Your task to perform on an android device: clear history in the chrome app Image 0: 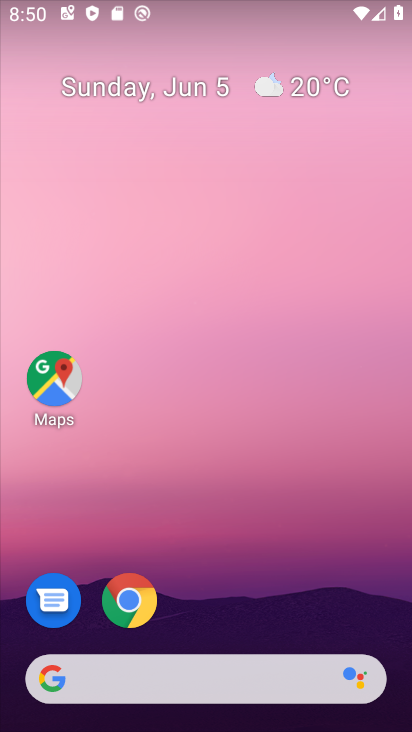
Step 0: click (130, 592)
Your task to perform on an android device: clear history in the chrome app Image 1: 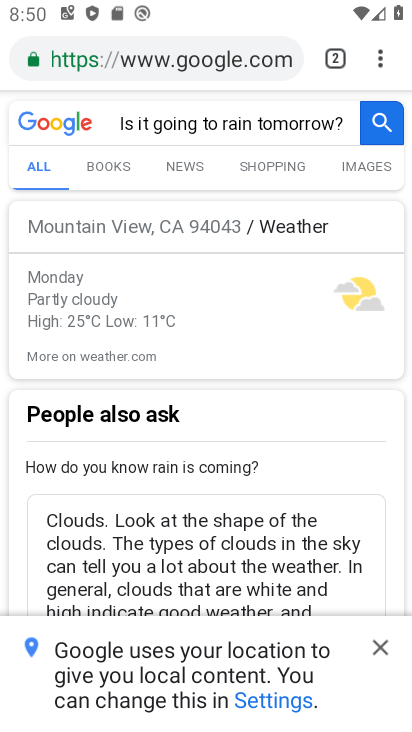
Step 1: click (378, 62)
Your task to perform on an android device: clear history in the chrome app Image 2: 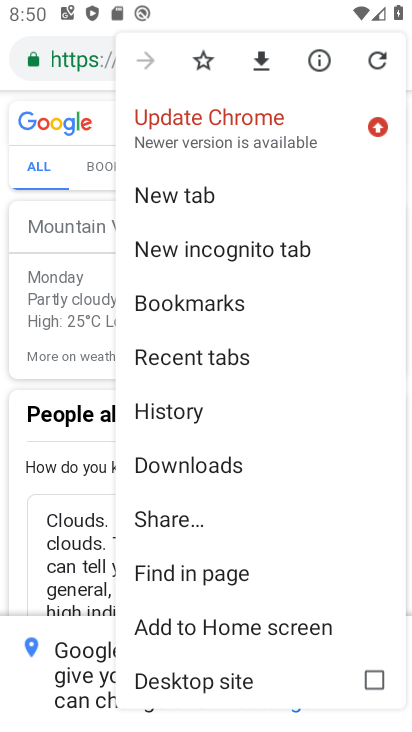
Step 2: click (175, 410)
Your task to perform on an android device: clear history in the chrome app Image 3: 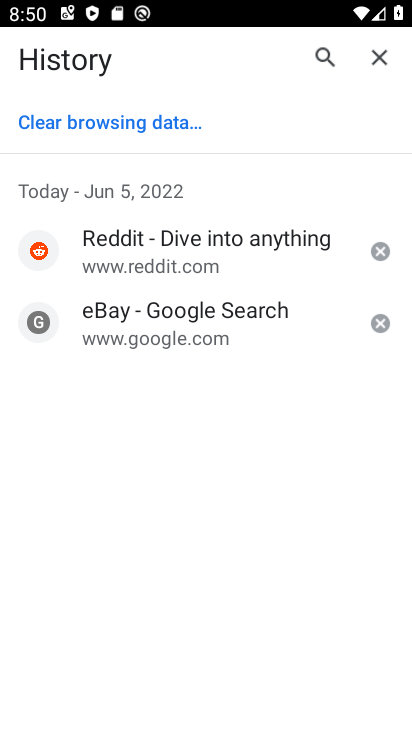
Step 3: click (138, 119)
Your task to perform on an android device: clear history in the chrome app Image 4: 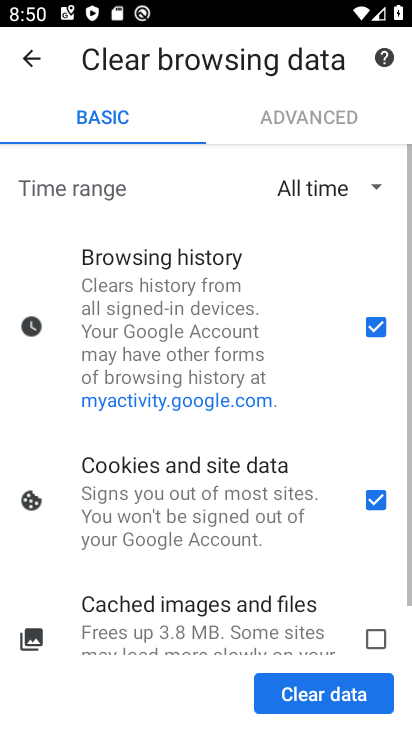
Step 4: click (350, 686)
Your task to perform on an android device: clear history in the chrome app Image 5: 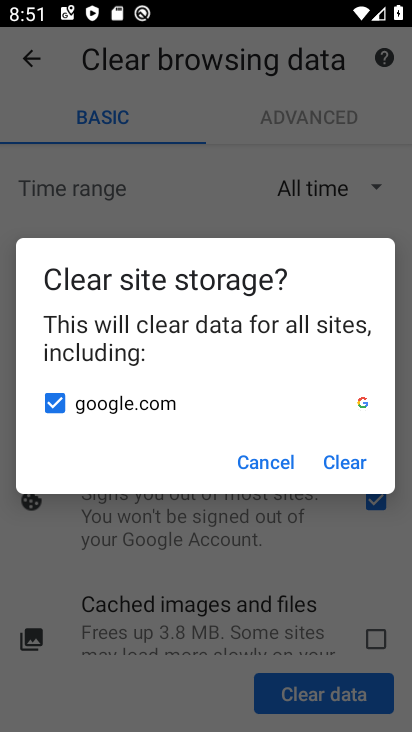
Step 5: click (357, 462)
Your task to perform on an android device: clear history in the chrome app Image 6: 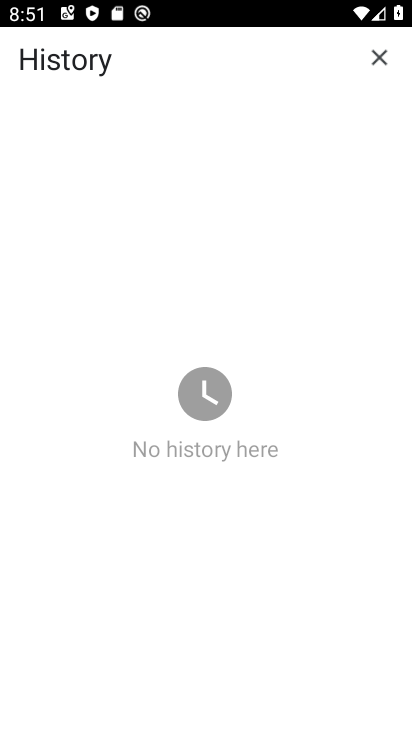
Step 6: task complete